Your task to perform on an android device: toggle sleep mode Image 0: 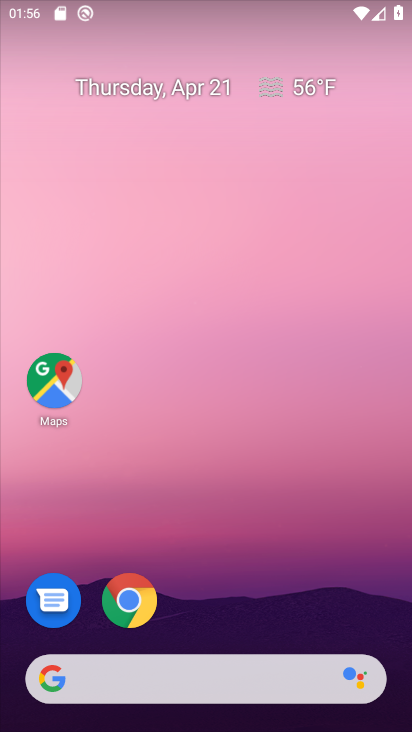
Step 0: drag from (319, 576) to (389, 101)
Your task to perform on an android device: toggle sleep mode Image 1: 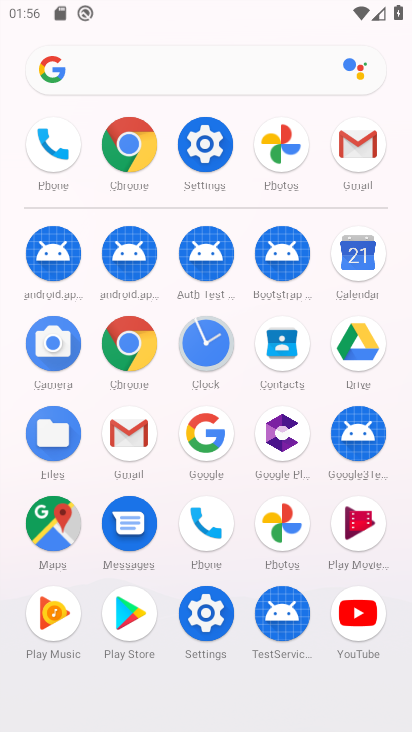
Step 1: click (206, 139)
Your task to perform on an android device: toggle sleep mode Image 2: 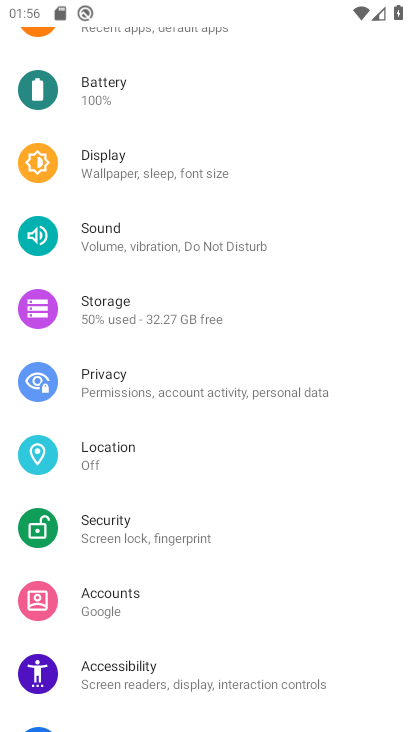
Step 2: click (206, 163)
Your task to perform on an android device: toggle sleep mode Image 3: 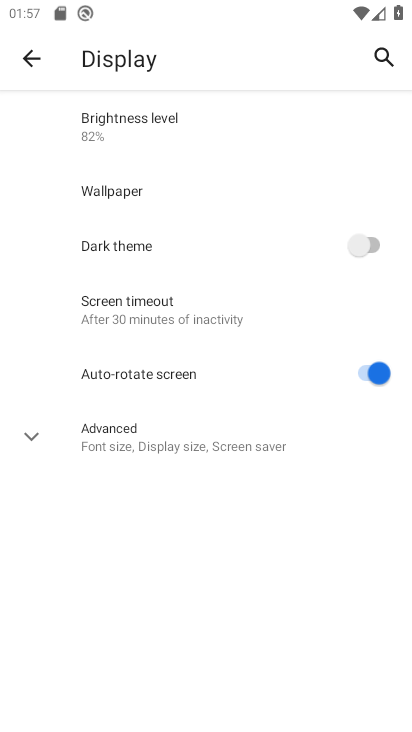
Step 3: click (30, 432)
Your task to perform on an android device: toggle sleep mode Image 4: 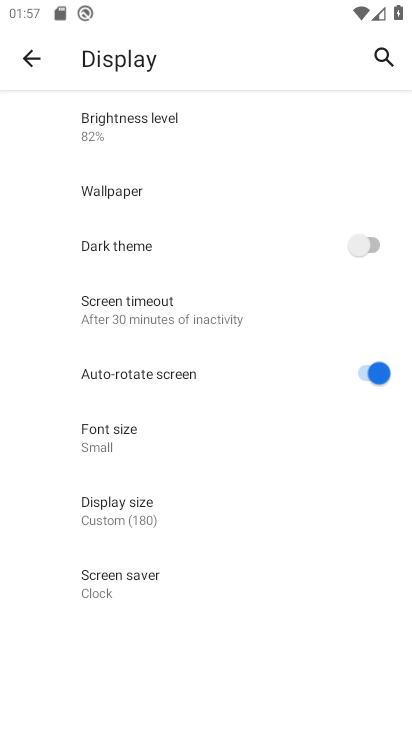
Step 4: task complete